Your task to perform on an android device: Add "razer blade" to the cart on target Image 0: 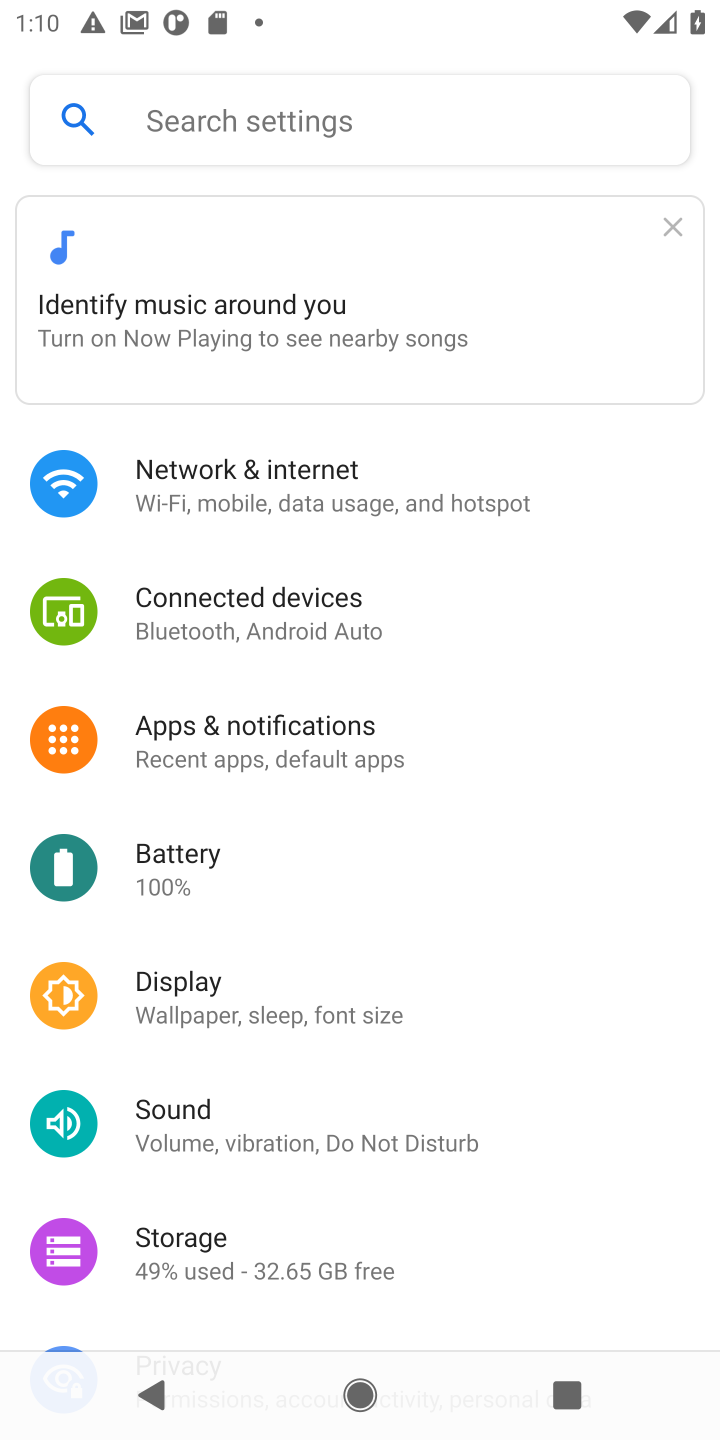
Step 0: press home button
Your task to perform on an android device: Add "razer blade" to the cart on target Image 1: 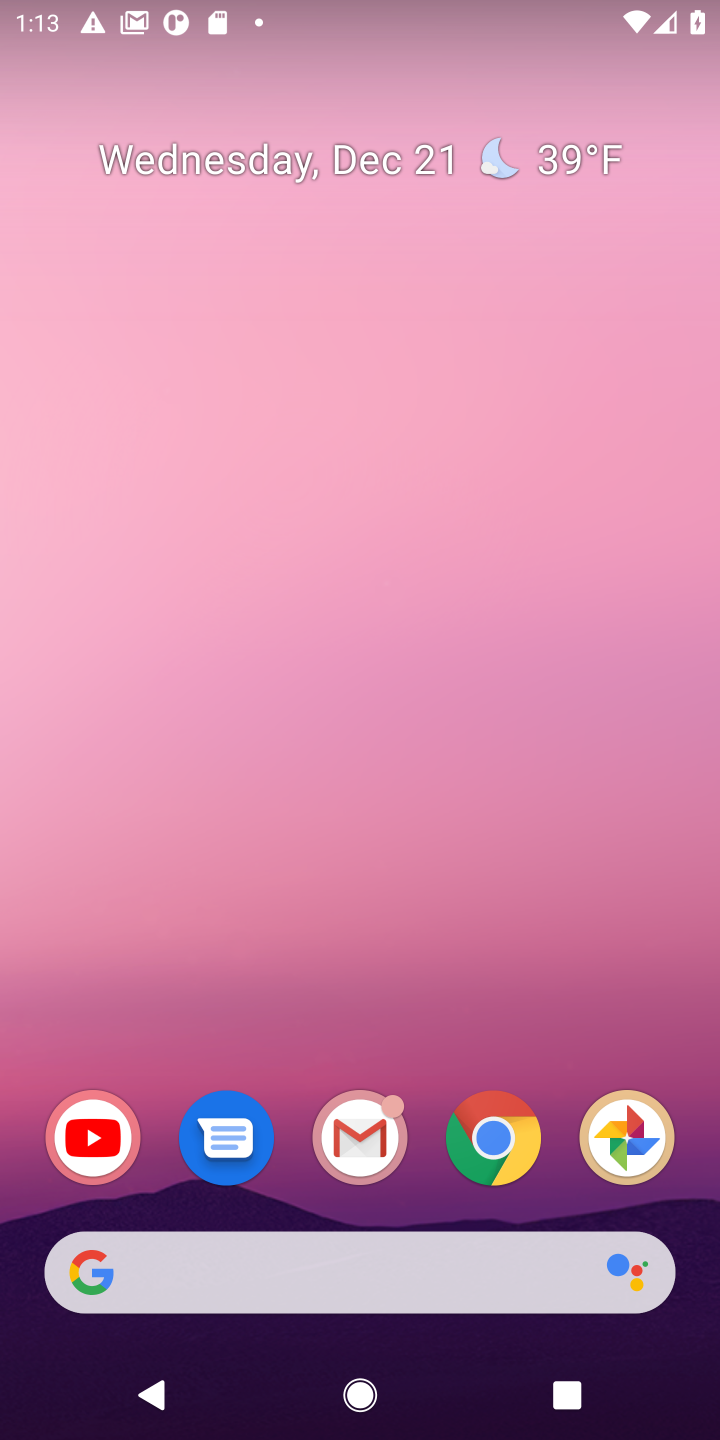
Step 1: task complete